Your task to perform on an android device: Open sound settings Image 0: 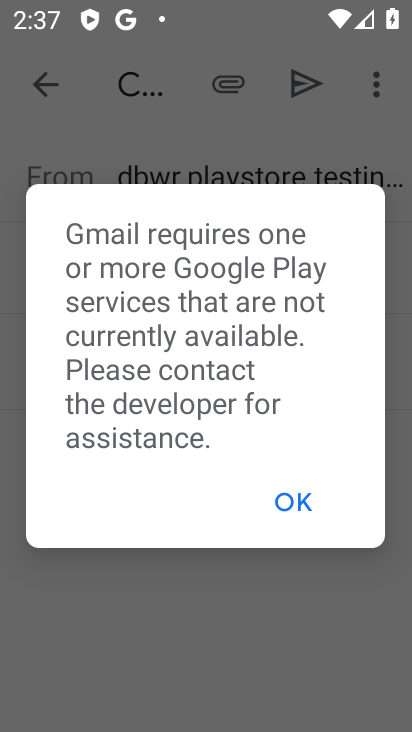
Step 0: click (297, 494)
Your task to perform on an android device: Open sound settings Image 1: 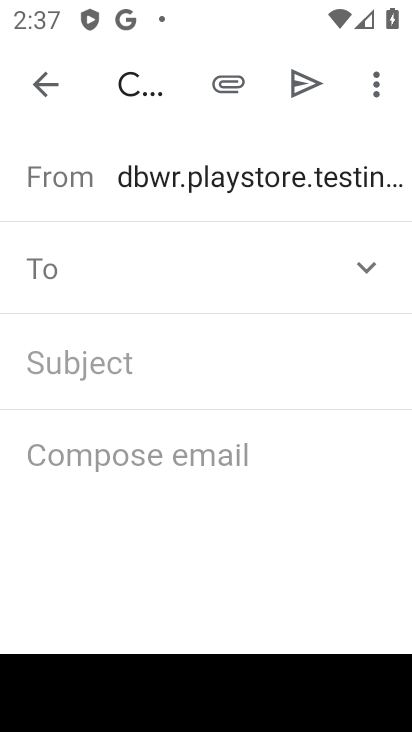
Step 1: press home button
Your task to perform on an android device: Open sound settings Image 2: 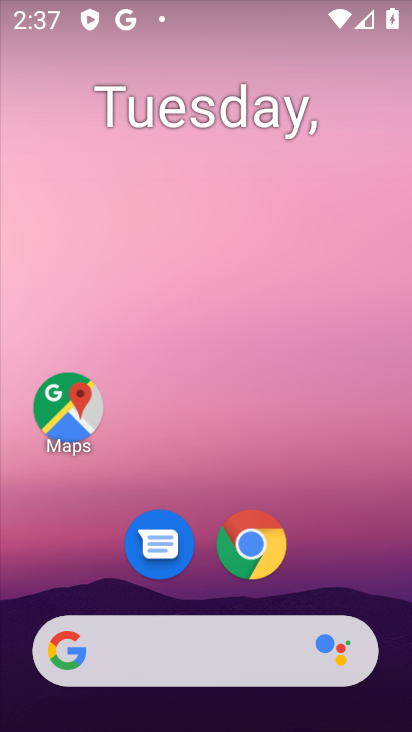
Step 2: drag from (203, 552) to (314, 26)
Your task to perform on an android device: Open sound settings Image 3: 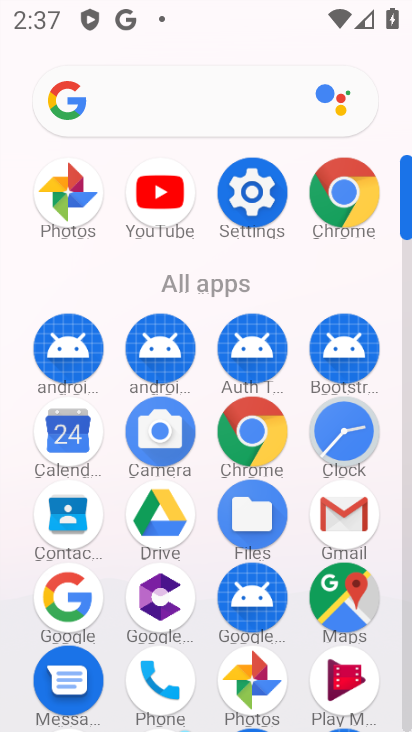
Step 3: click (237, 200)
Your task to perform on an android device: Open sound settings Image 4: 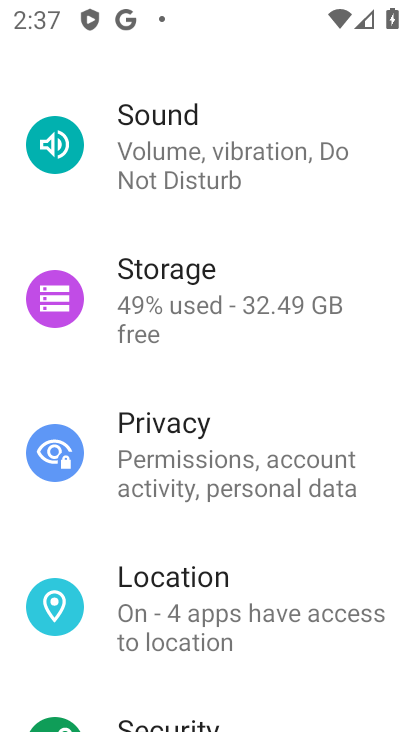
Step 4: click (209, 159)
Your task to perform on an android device: Open sound settings Image 5: 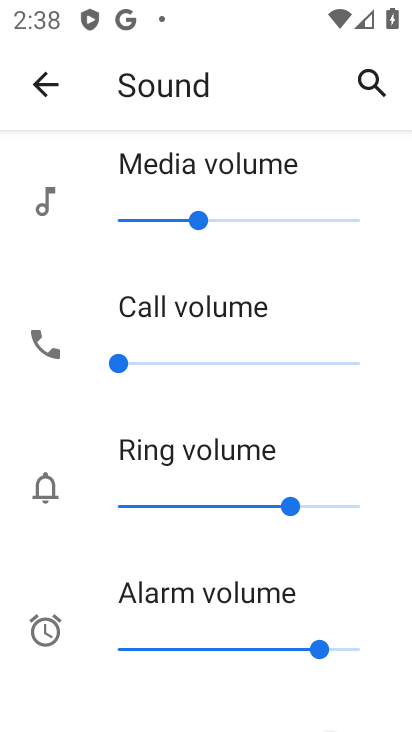
Step 5: task complete